Your task to perform on an android device: View the shopping cart on amazon.com. Search for "lg ultragear" on amazon.com, select the first entry, and add it to the cart. Image 0: 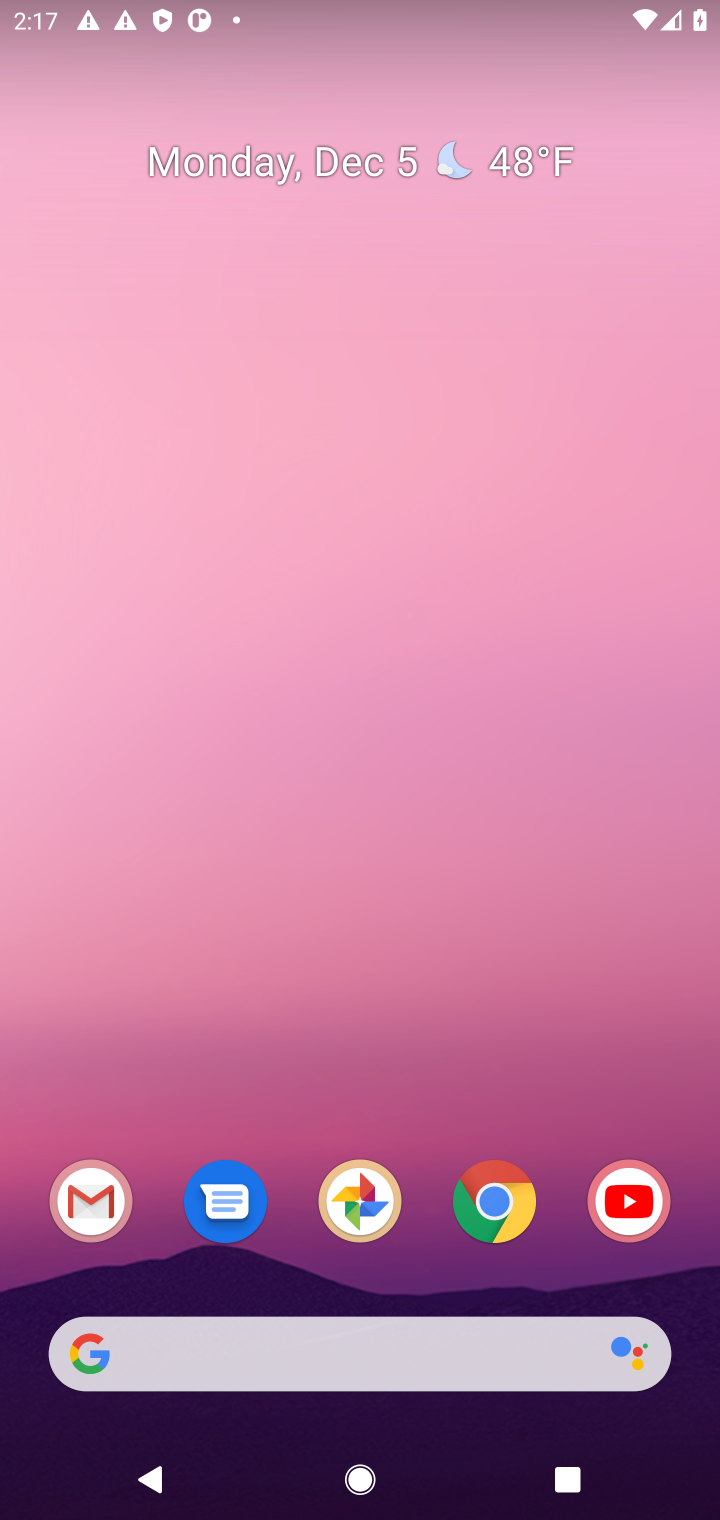
Step 0: click (502, 1218)
Your task to perform on an android device: View the shopping cart on amazon.com. Search for "lg ultragear" on amazon.com, select the first entry, and add it to the cart. Image 1: 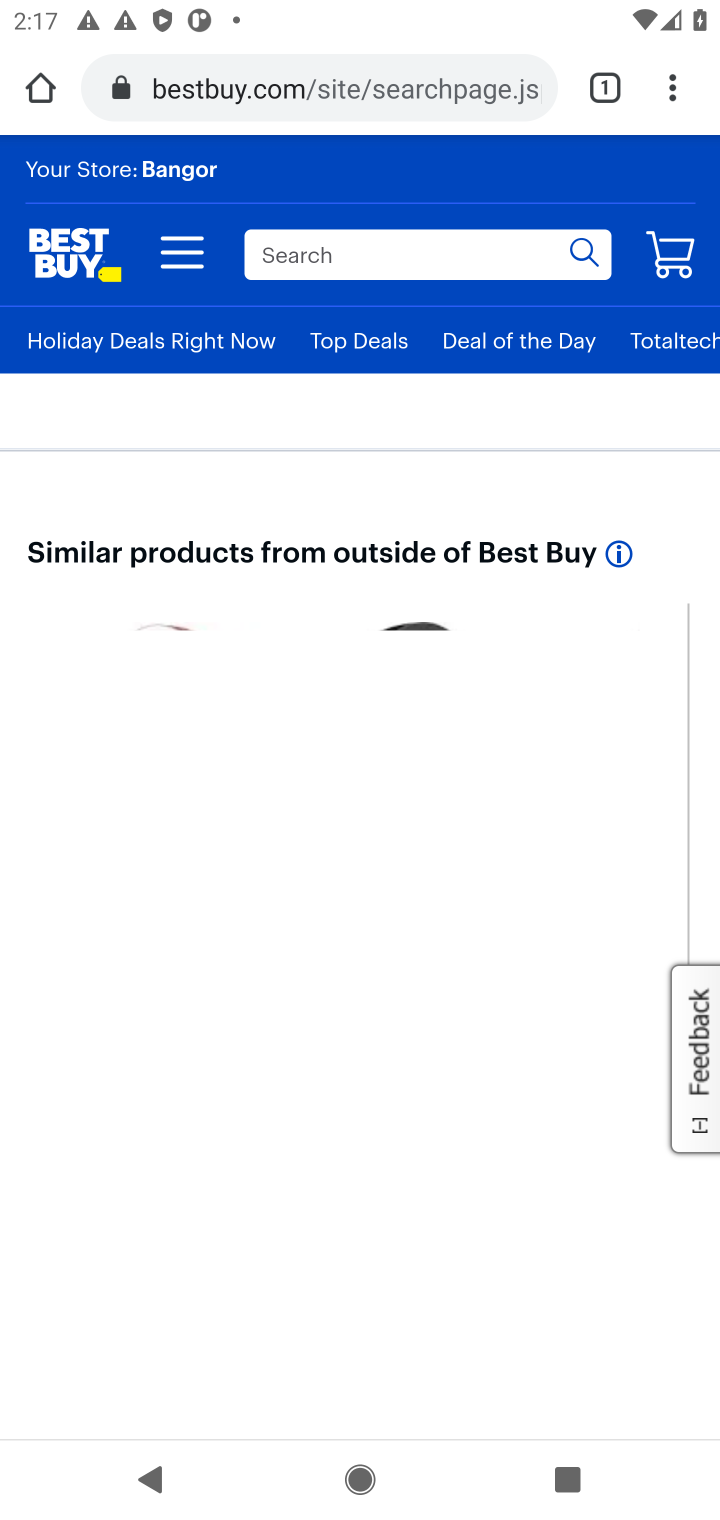
Step 1: click (346, 91)
Your task to perform on an android device: View the shopping cart on amazon.com. Search for "lg ultragear" on amazon.com, select the first entry, and add it to the cart. Image 2: 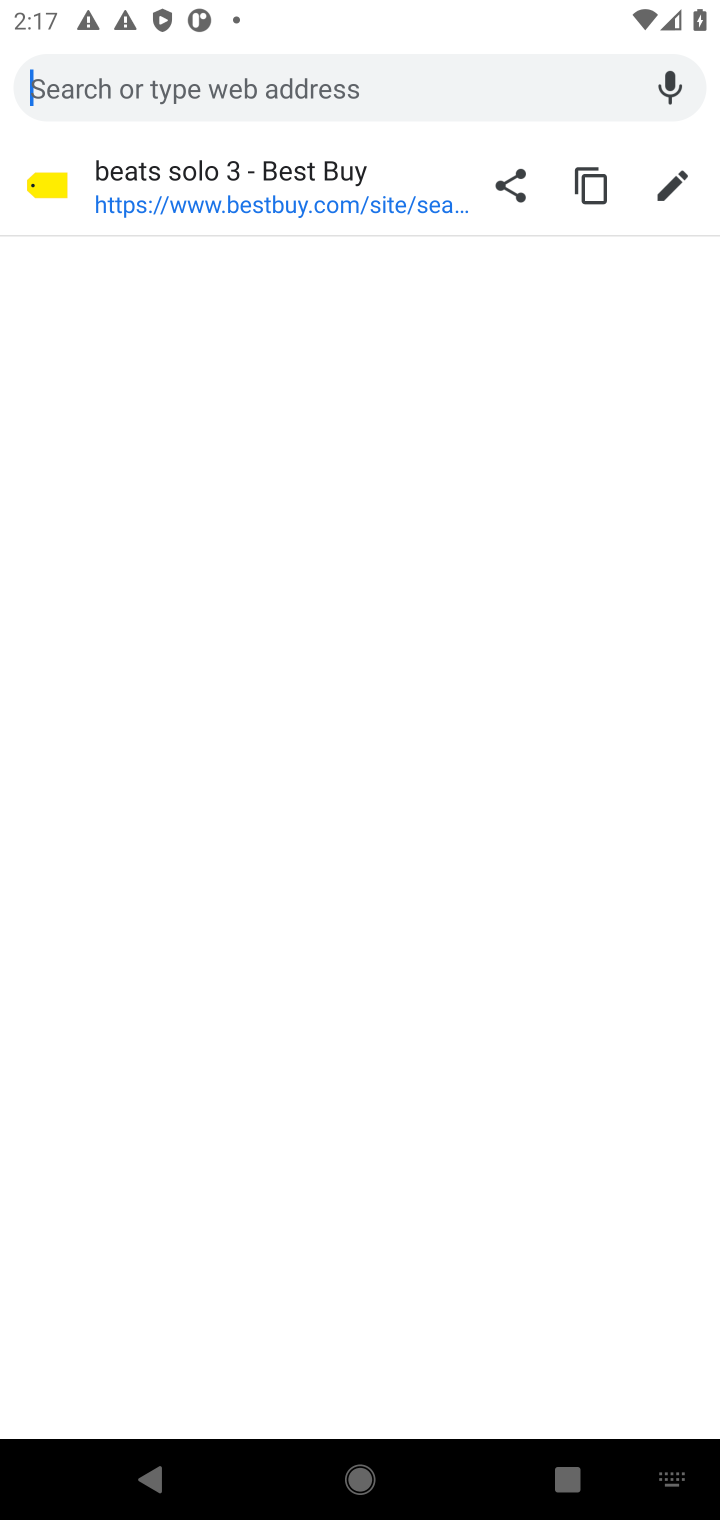
Step 2: type "amazon"
Your task to perform on an android device: View the shopping cart on amazon.com. Search for "lg ultragear" on amazon.com, select the first entry, and add it to the cart. Image 3: 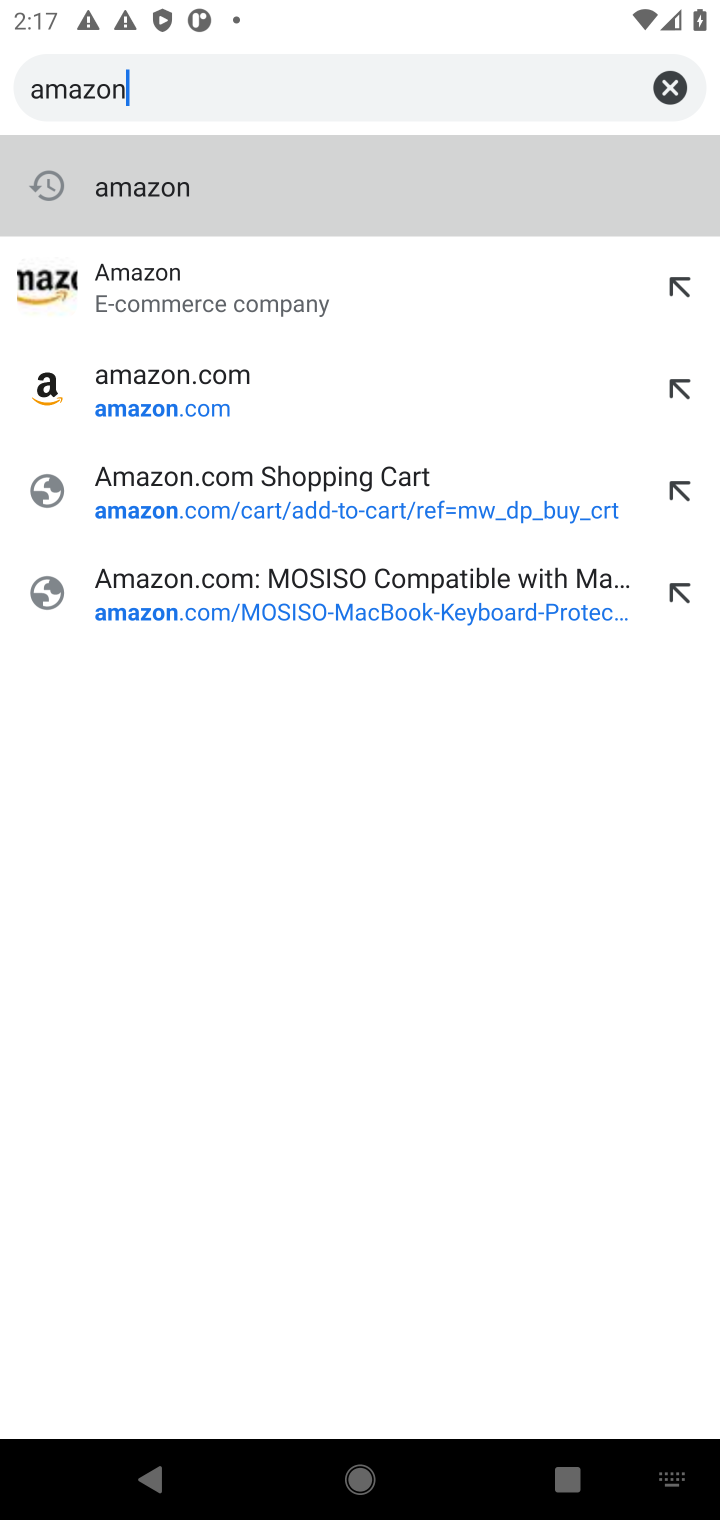
Step 3: click (257, 283)
Your task to perform on an android device: View the shopping cart on amazon.com. Search for "lg ultragear" on amazon.com, select the first entry, and add it to the cart. Image 4: 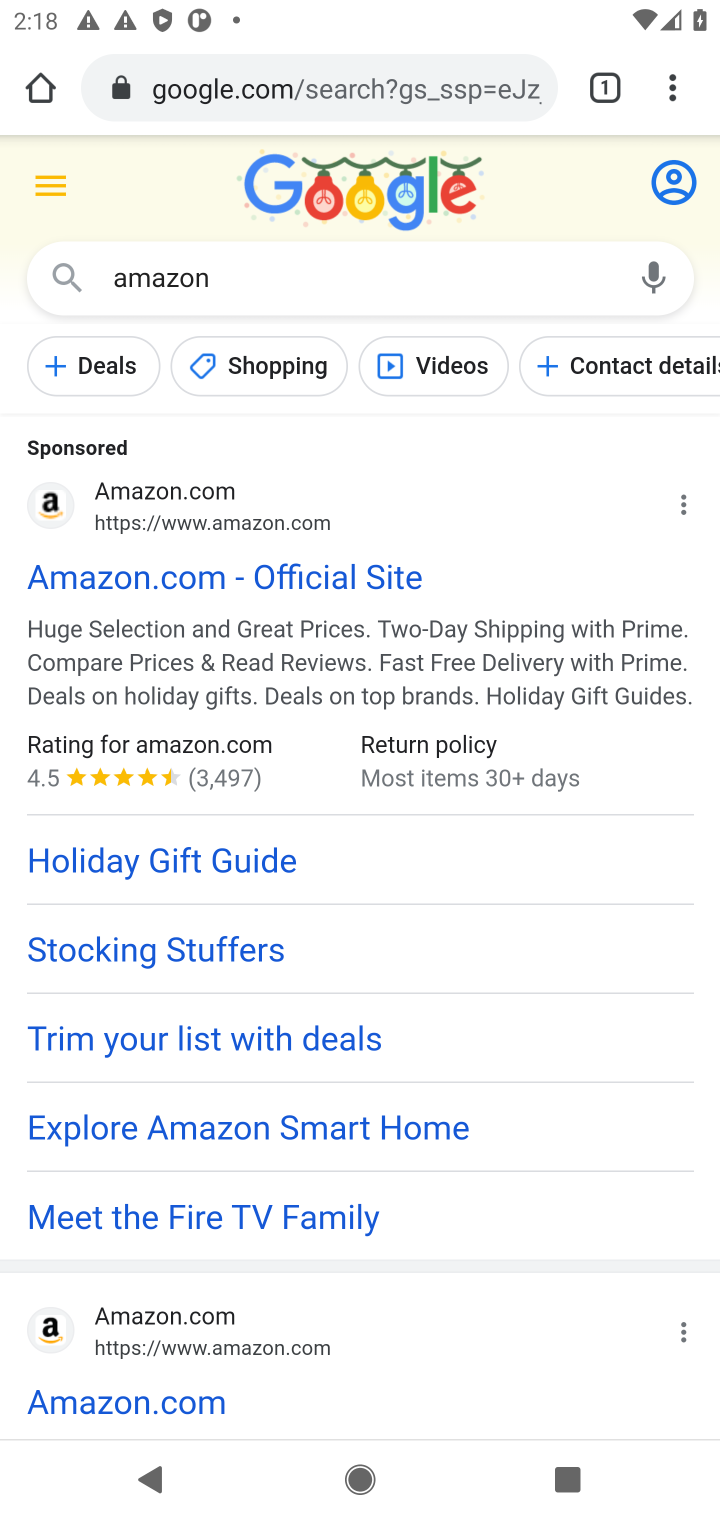
Step 4: click (177, 584)
Your task to perform on an android device: View the shopping cart on amazon.com. Search for "lg ultragear" on amazon.com, select the first entry, and add it to the cart. Image 5: 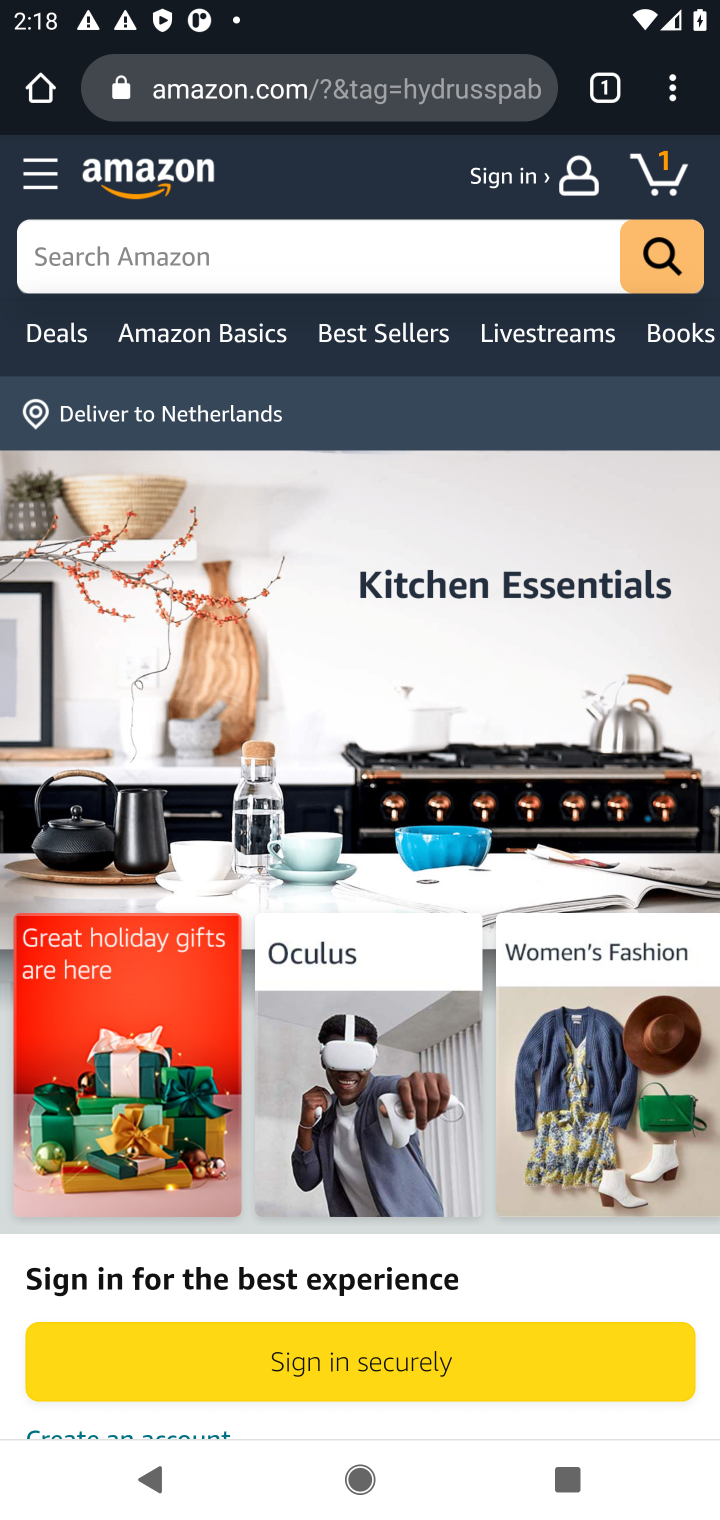
Step 5: click (429, 259)
Your task to perform on an android device: View the shopping cart on amazon.com. Search for "lg ultragear" on amazon.com, select the first entry, and add it to the cart. Image 6: 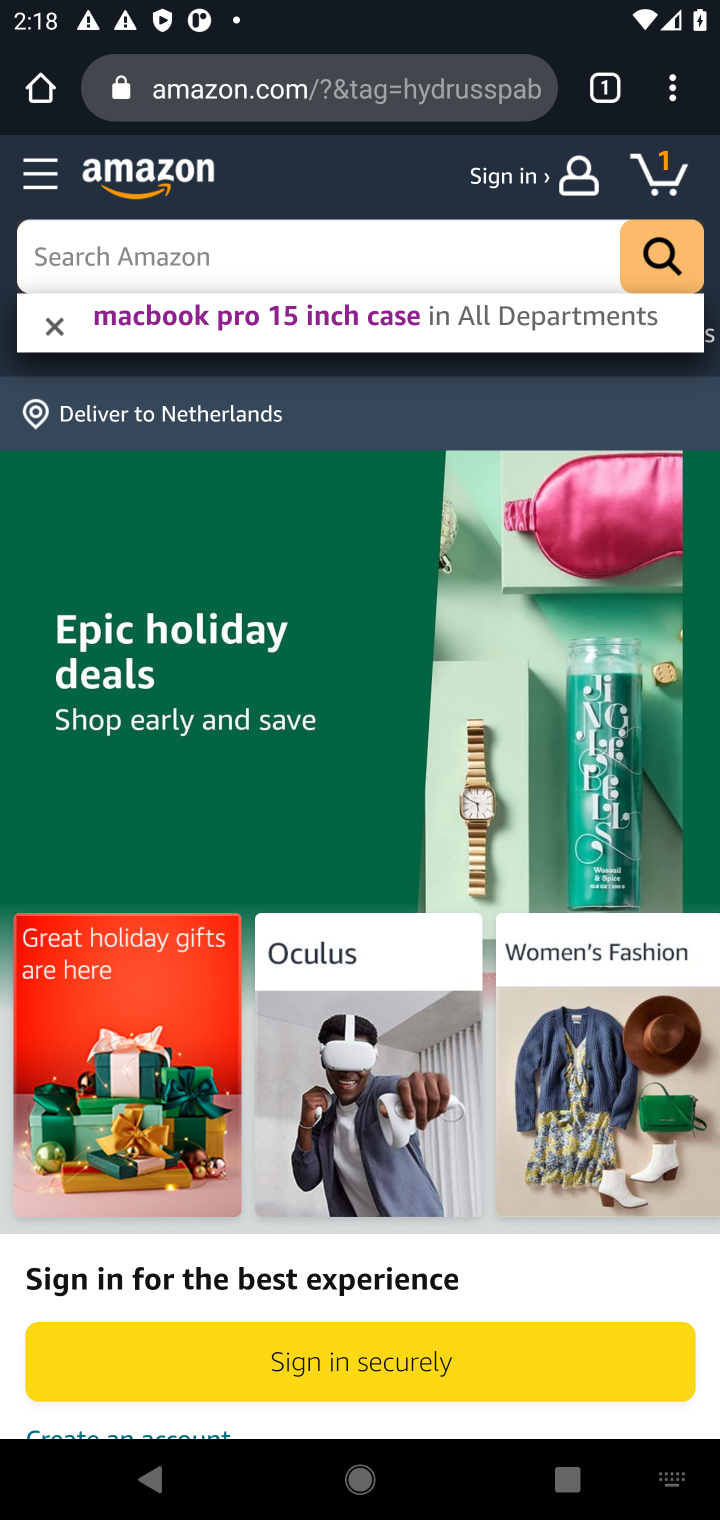
Step 6: type "lg ultragear"
Your task to perform on an android device: View the shopping cart on amazon.com. Search for "lg ultragear" on amazon.com, select the first entry, and add it to the cart. Image 7: 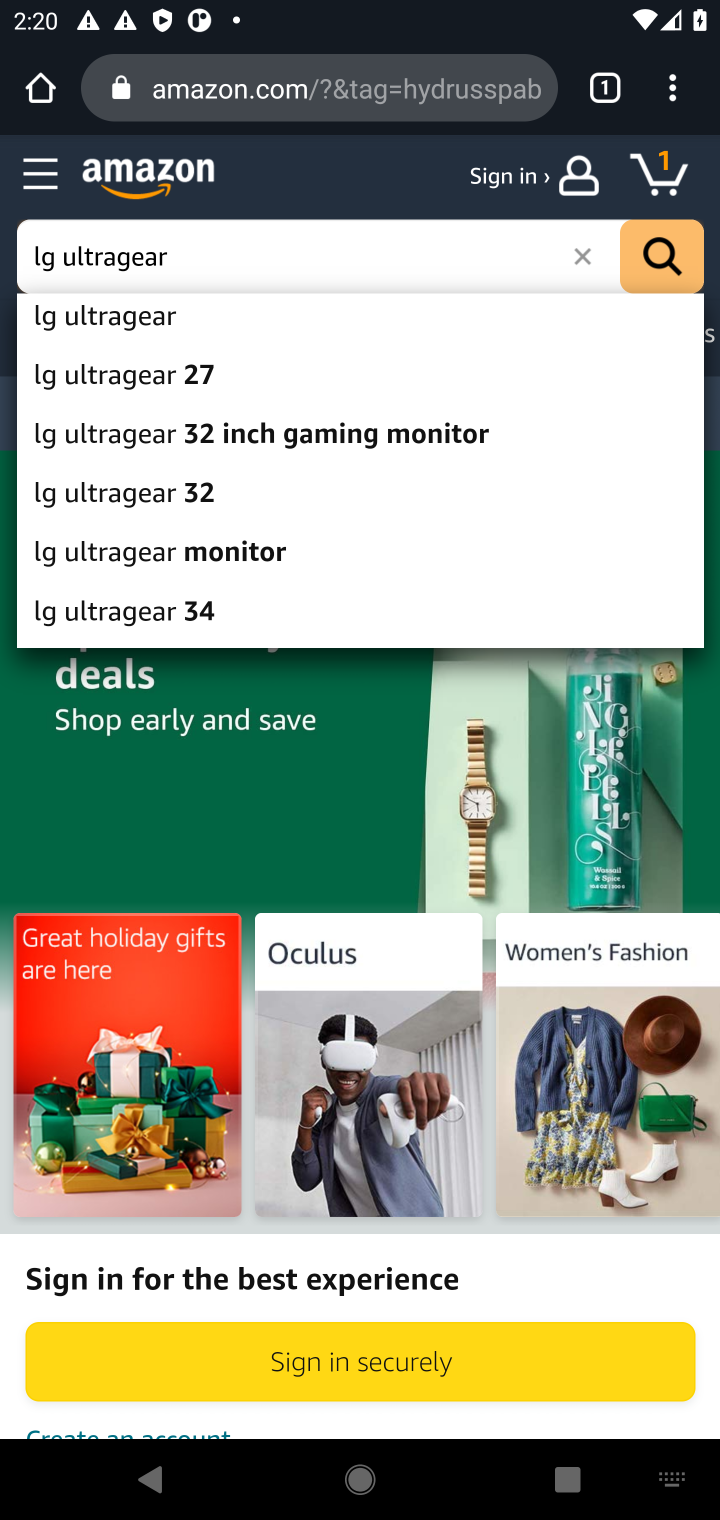
Step 7: click (189, 317)
Your task to perform on an android device: View the shopping cart on amazon.com. Search for "lg ultragear" on amazon.com, select the first entry, and add it to the cart. Image 8: 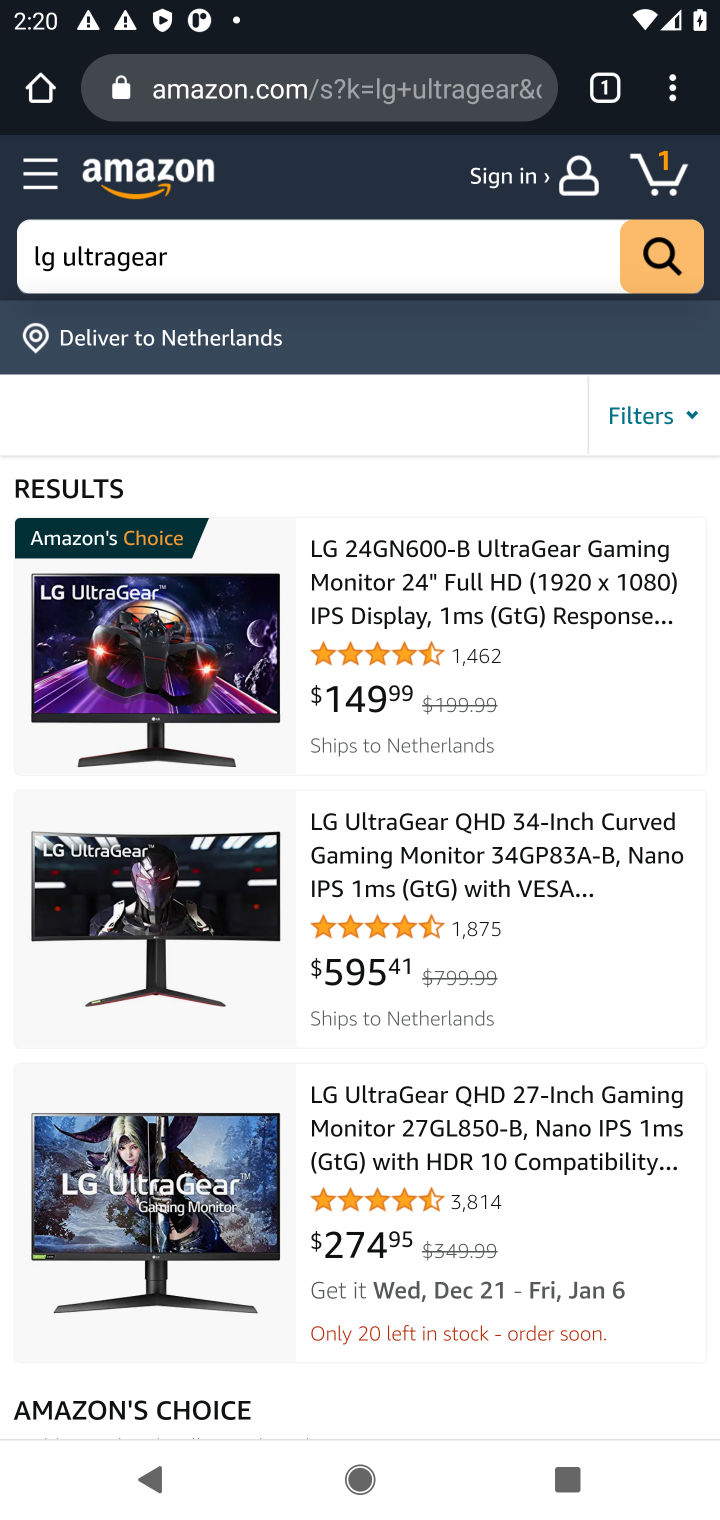
Step 8: click (195, 645)
Your task to perform on an android device: View the shopping cart on amazon.com. Search for "lg ultragear" on amazon.com, select the first entry, and add it to the cart. Image 9: 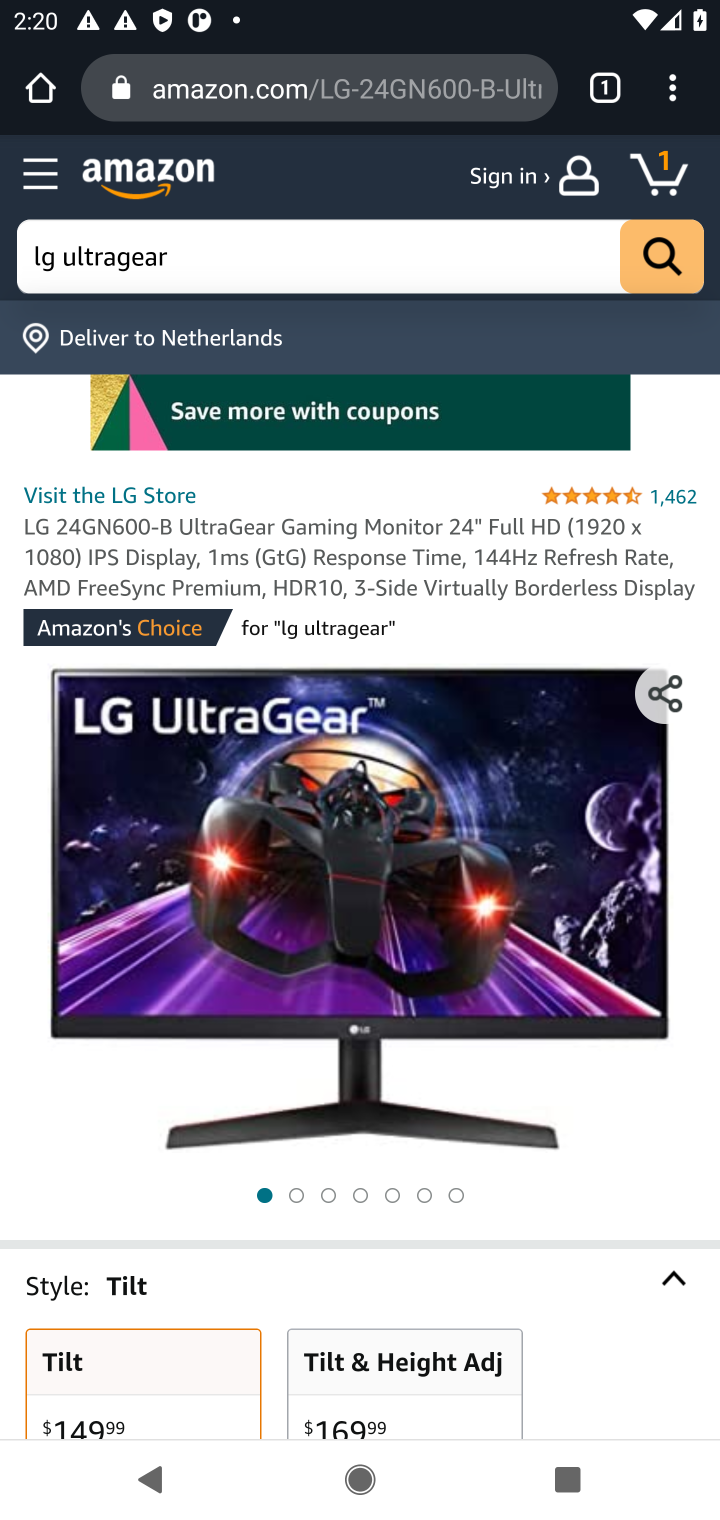
Step 9: drag from (473, 1344) to (343, 398)
Your task to perform on an android device: View the shopping cart on amazon.com. Search for "lg ultragear" on amazon.com, select the first entry, and add it to the cart. Image 10: 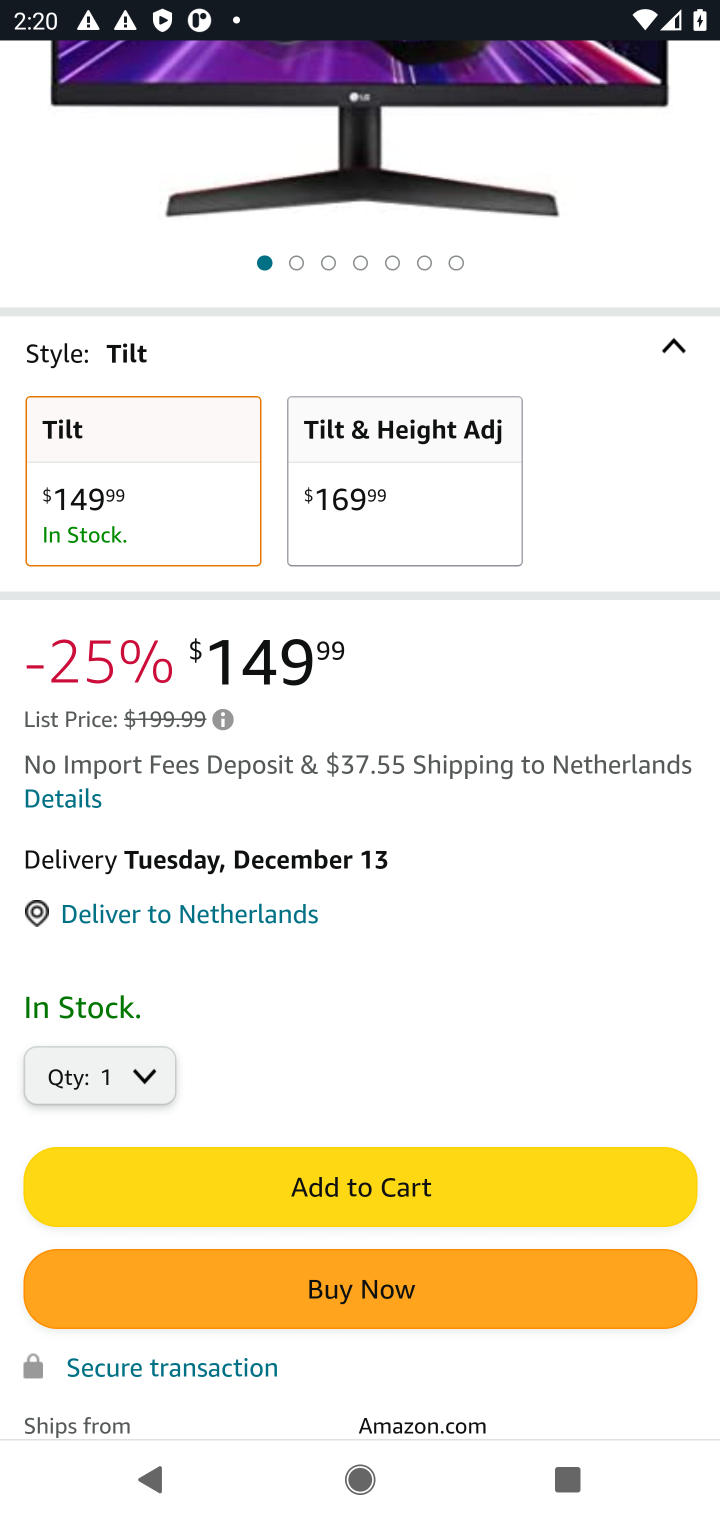
Step 10: click (363, 1176)
Your task to perform on an android device: View the shopping cart on amazon.com. Search for "lg ultragear" on amazon.com, select the first entry, and add it to the cart. Image 11: 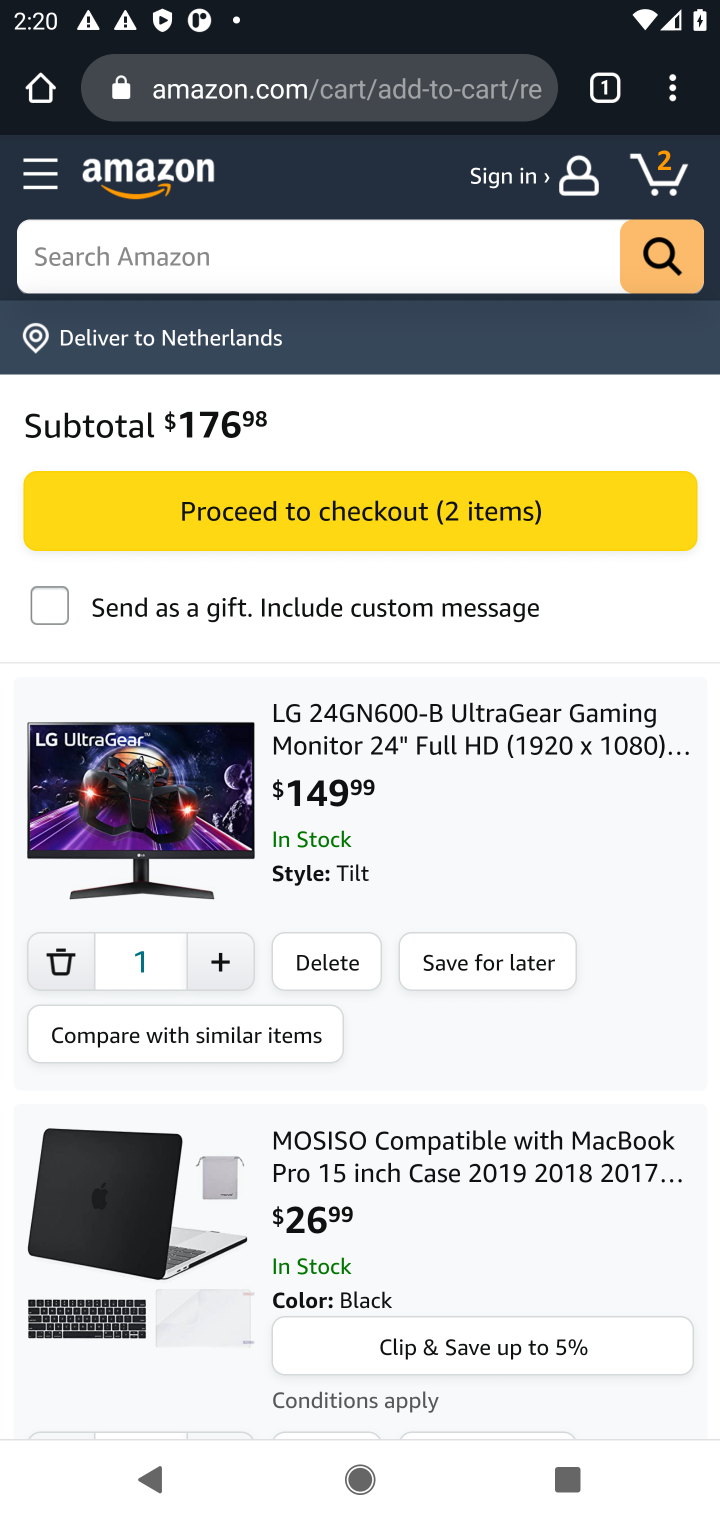
Step 11: task complete